Your task to perform on an android device: Search for vegetarian restaurants on Maps Image 0: 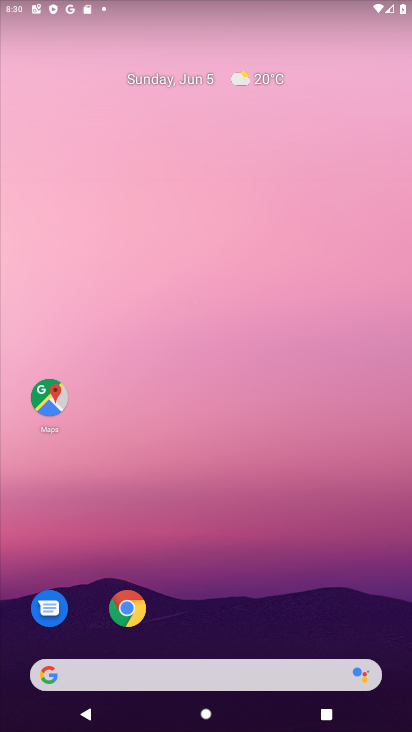
Step 0: click (352, 110)
Your task to perform on an android device: Search for vegetarian restaurants on Maps Image 1: 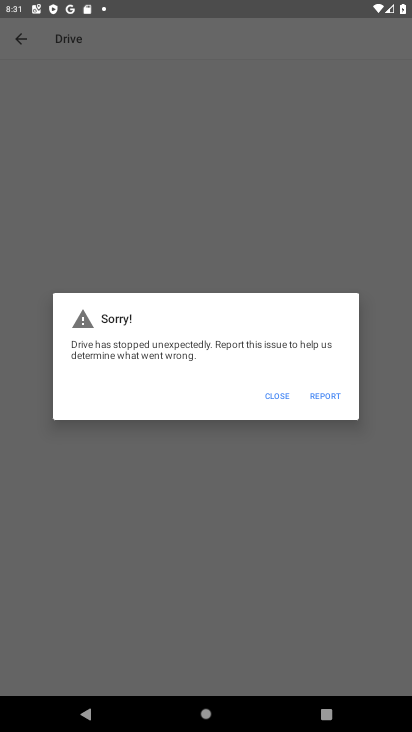
Step 1: press home button
Your task to perform on an android device: Search for vegetarian restaurants on Maps Image 2: 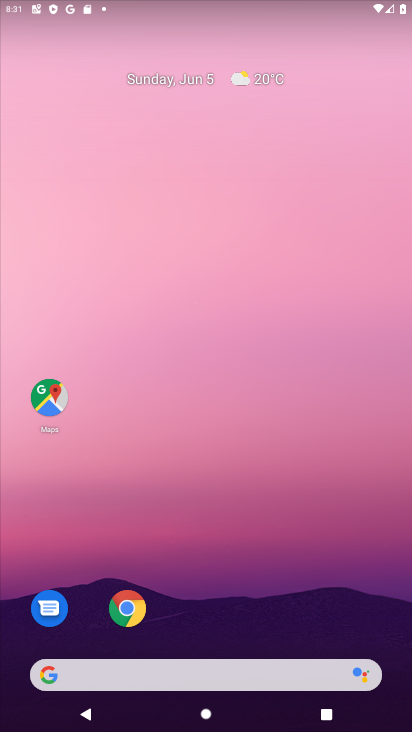
Step 2: drag from (19, 570) to (175, 211)
Your task to perform on an android device: Search for vegetarian restaurants on Maps Image 3: 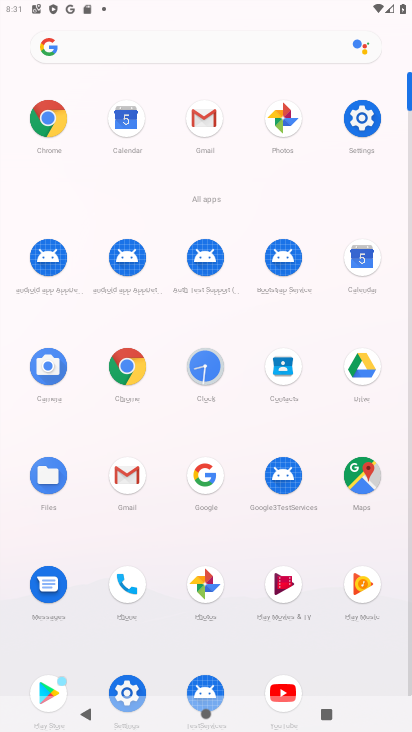
Step 3: click (360, 472)
Your task to perform on an android device: Search for vegetarian restaurants on Maps Image 4: 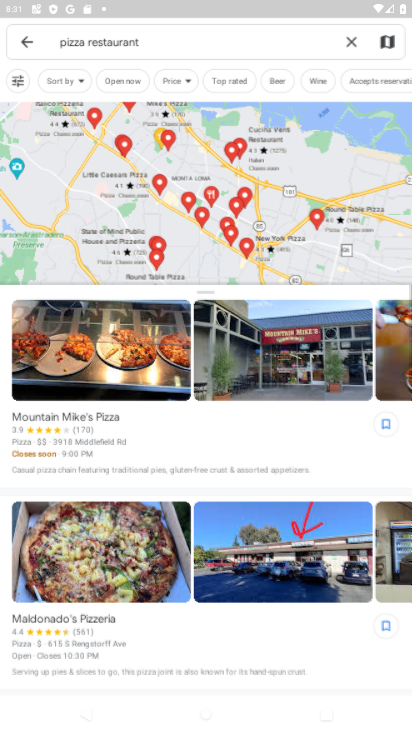
Step 4: click (356, 41)
Your task to perform on an android device: Search for vegetarian restaurants on Maps Image 5: 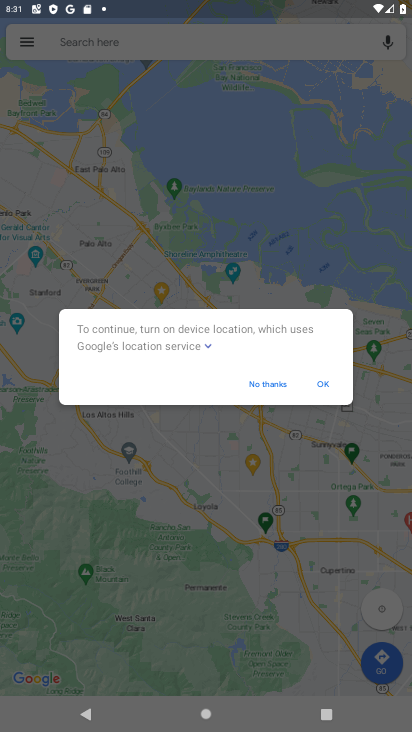
Step 5: click (257, 385)
Your task to perform on an android device: Search for vegetarian restaurants on Maps Image 6: 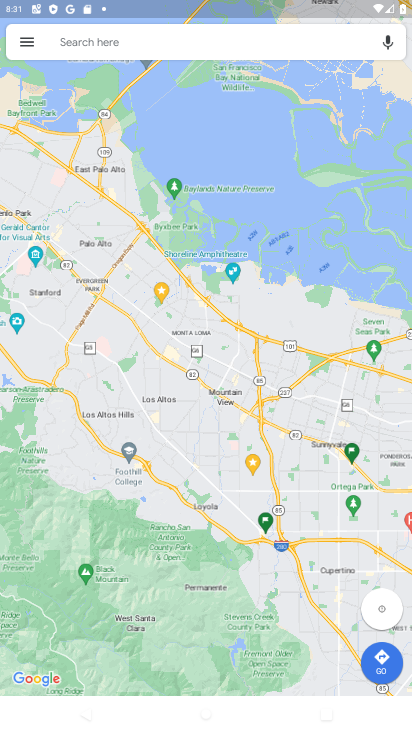
Step 6: click (202, 37)
Your task to perform on an android device: Search for vegetarian restaurants on Maps Image 7: 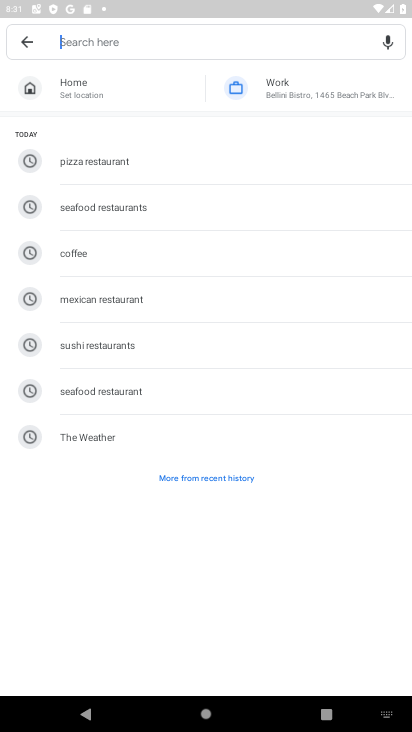
Step 7: click (171, 20)
Your task to perform on an android device: Search for vegetarian restaurants on Maps Image 8: 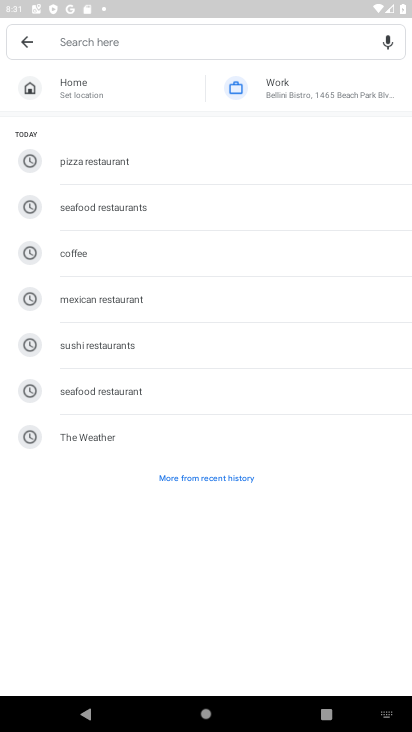
Step 8: click (167, 31)
Your task to perform on an android device: Search for vegetarian restaurants on Maps Image 9: 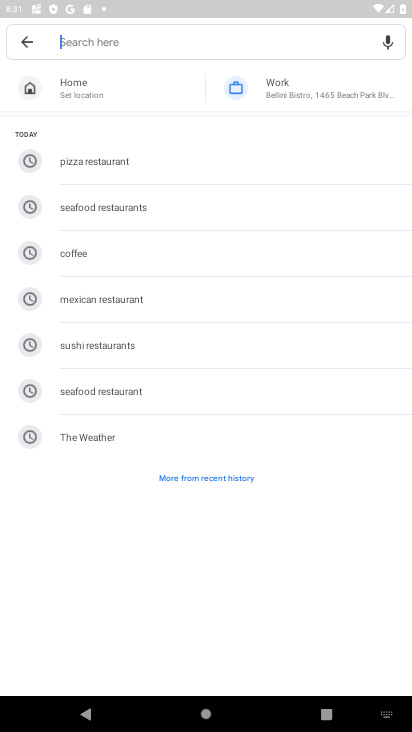
Step 9: type "vegetarian restaurants"
Your task to perform on an android device: Search for vegetarian restaurants on Maps Image 10: 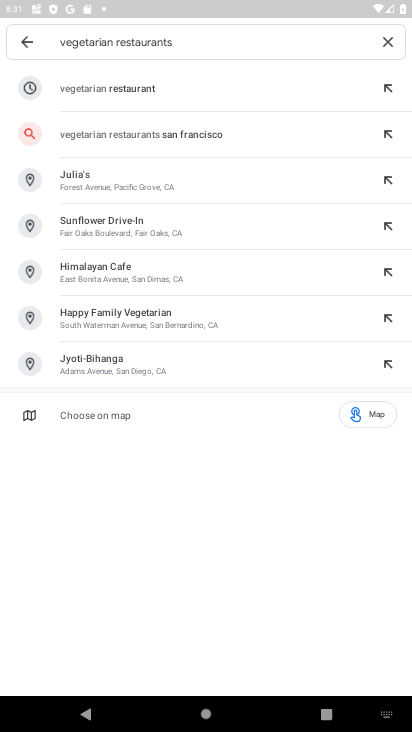
Step 10: click (164, 88)
Your task to perform on an android device: Search for vegetarian restaurants on Maps Image 11: 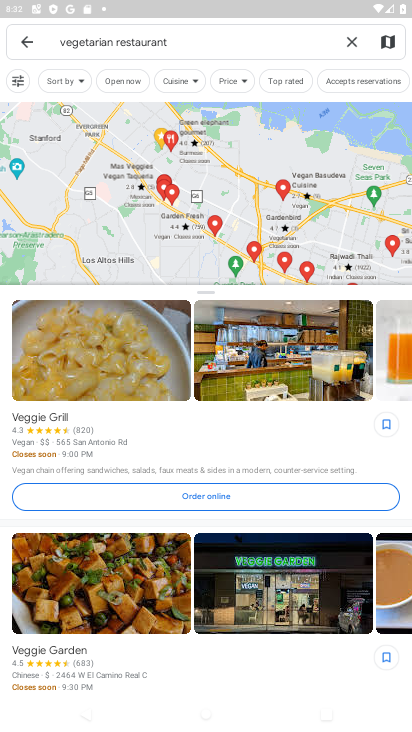
Step 11: task complete